Your task to perform on an android device: turn on priority inbox in the gmail app Image 0: 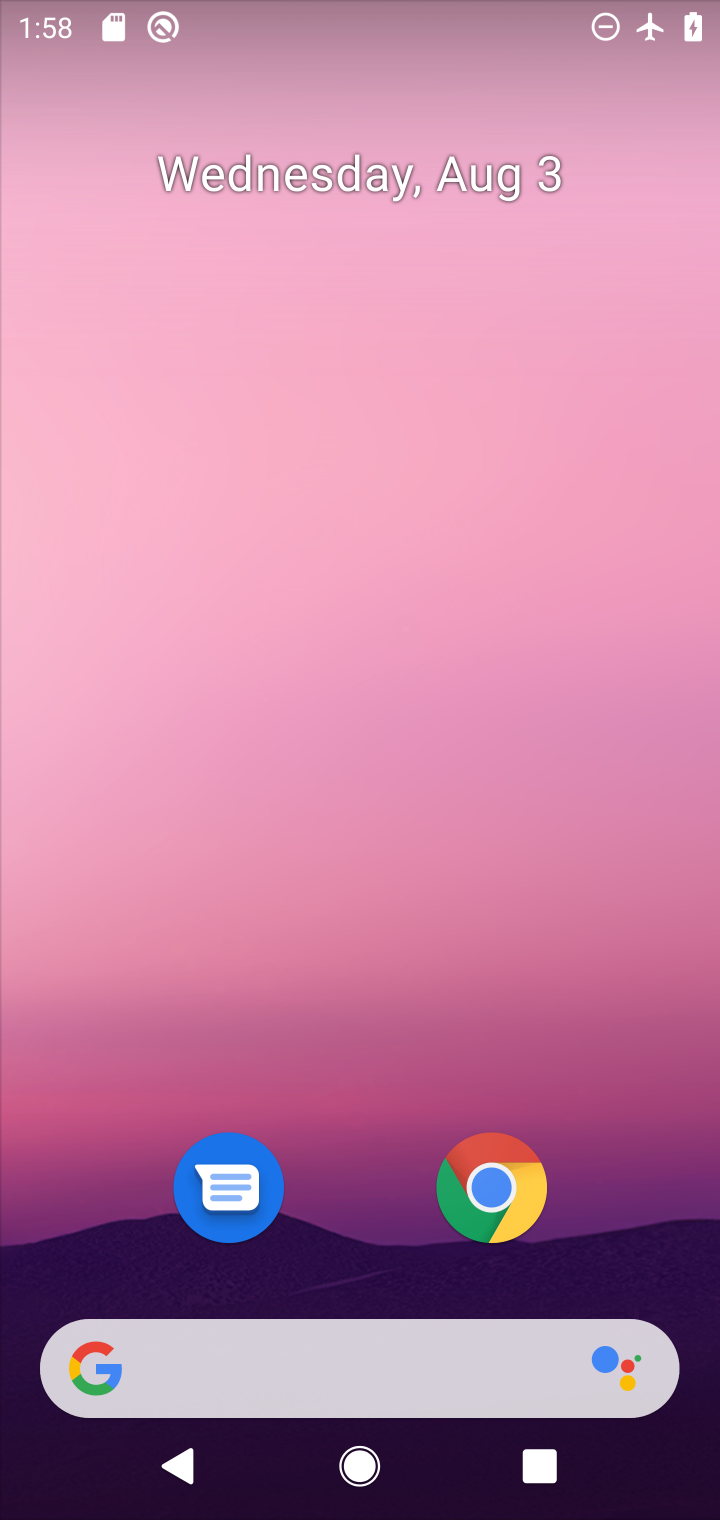
Step 0: drag from (351, 1075) to (457, 33)
Your task to perform on an android device: turn on priority inbox in the gmail app Image 1: 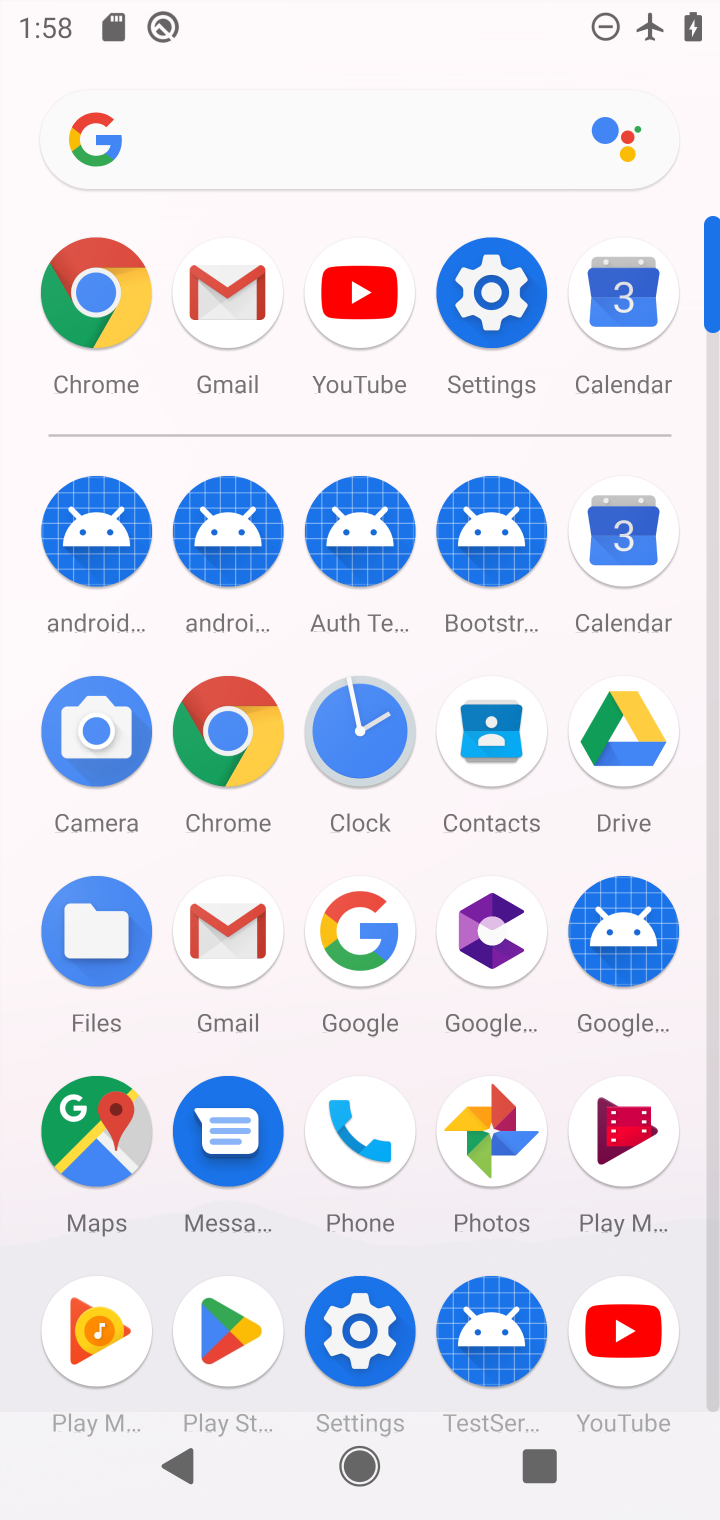
Step 1: click (217, 269)
Your task to perform on an android device: turn on priority inbox in the gmail app Image 2: 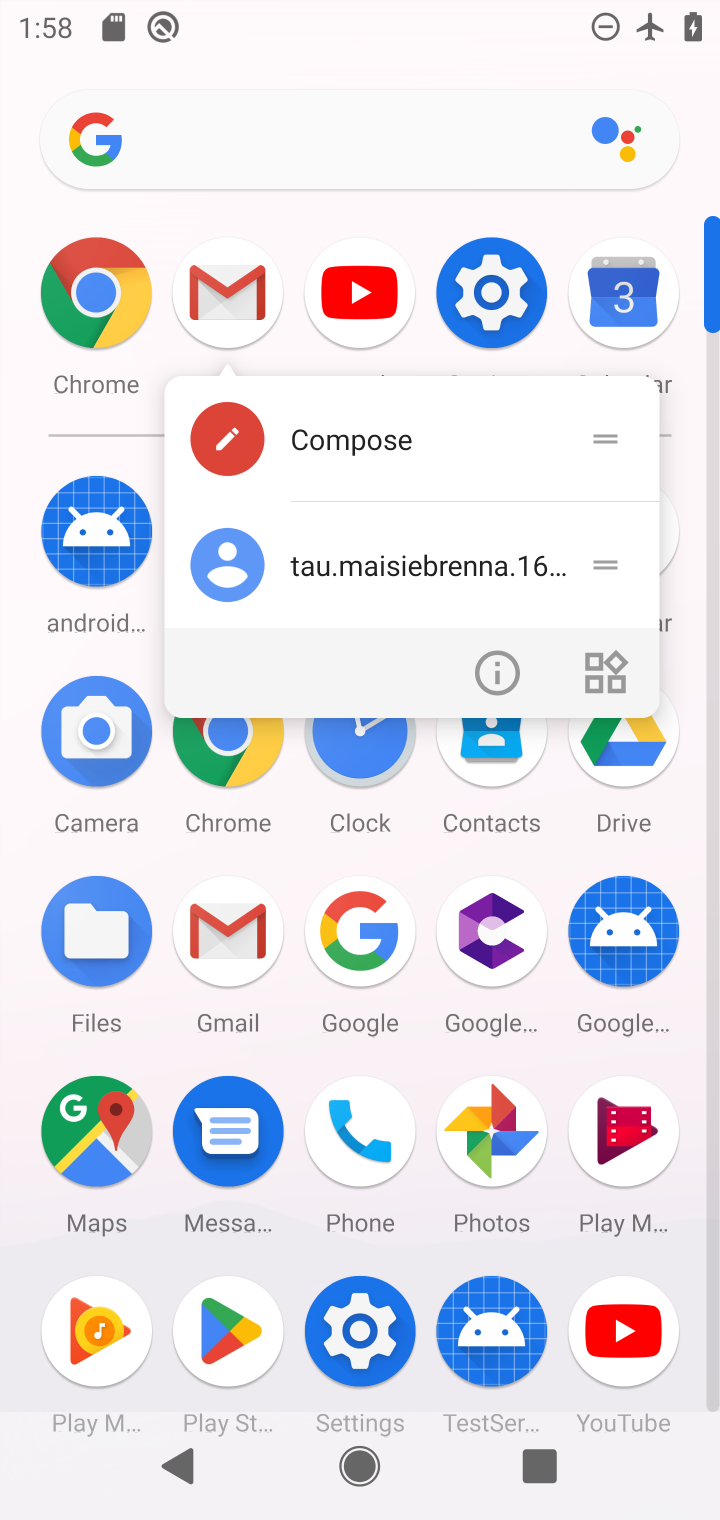
Step 2: click (217, 263)
Your task to perform on an android device: turn on priority inbox in the gmail app Image 3: 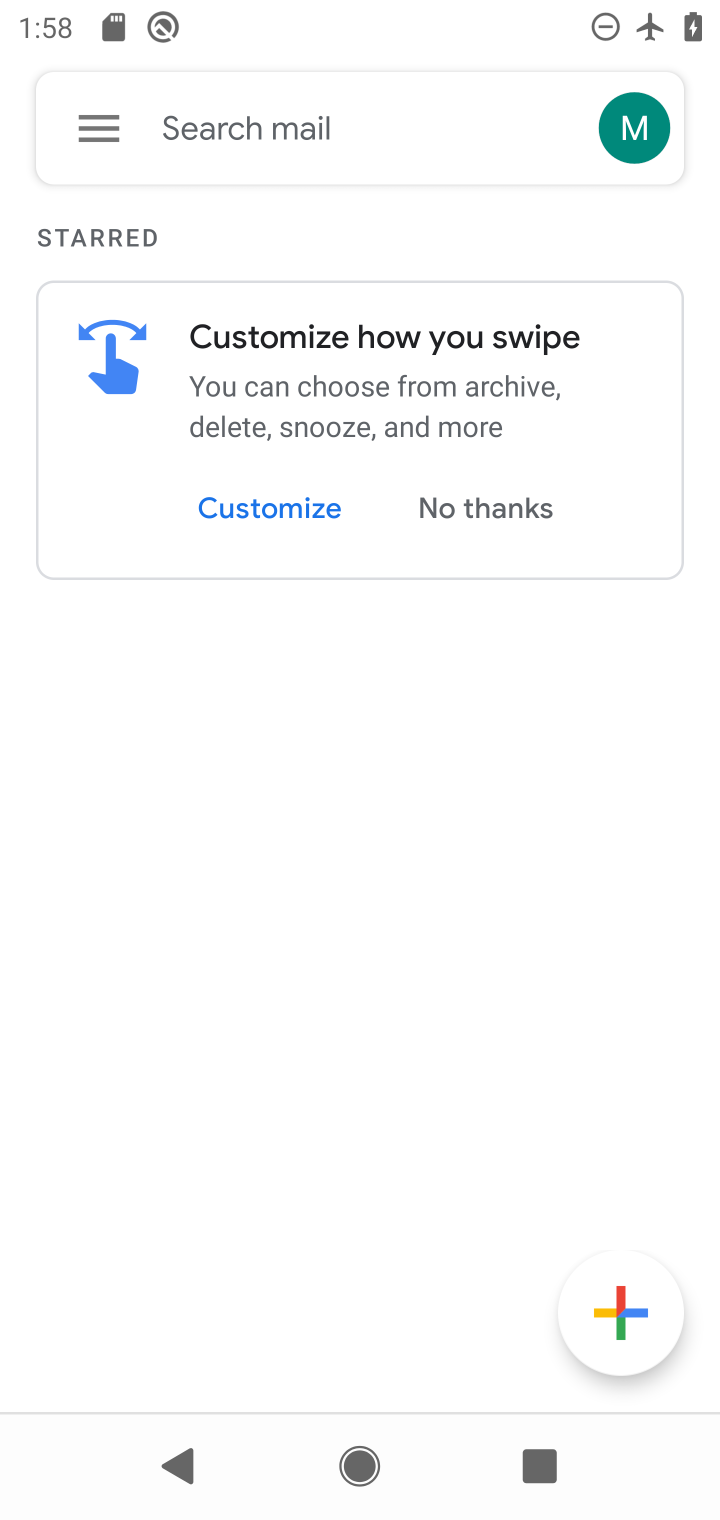
Step 3: click (105, 124)
Your task to perform on an android device: turn on priority inbox in the gmail app Image 4: 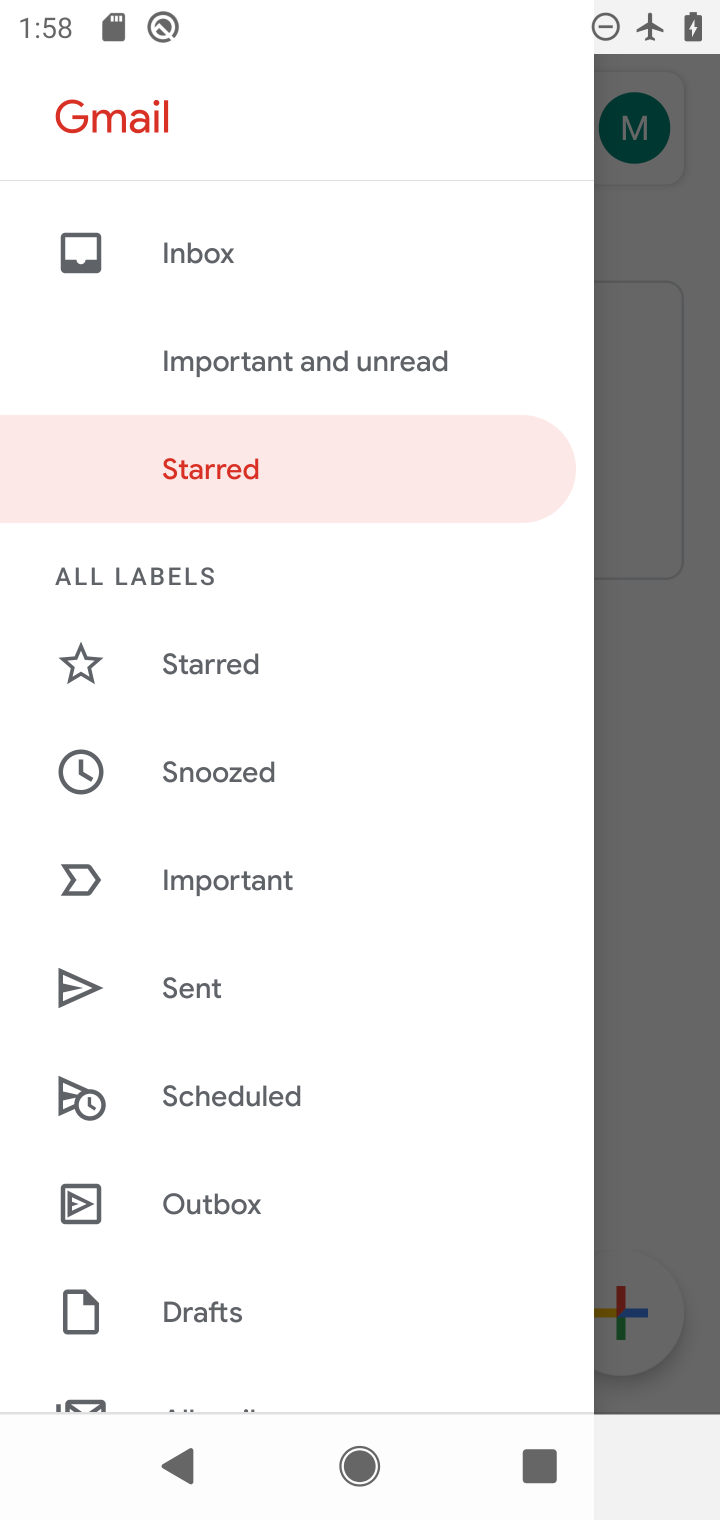
Step 4: drag from (365, 1202) to (375, 374)
Your task to perform on an android device: turn on priority inbox in the gmail app Image 5: 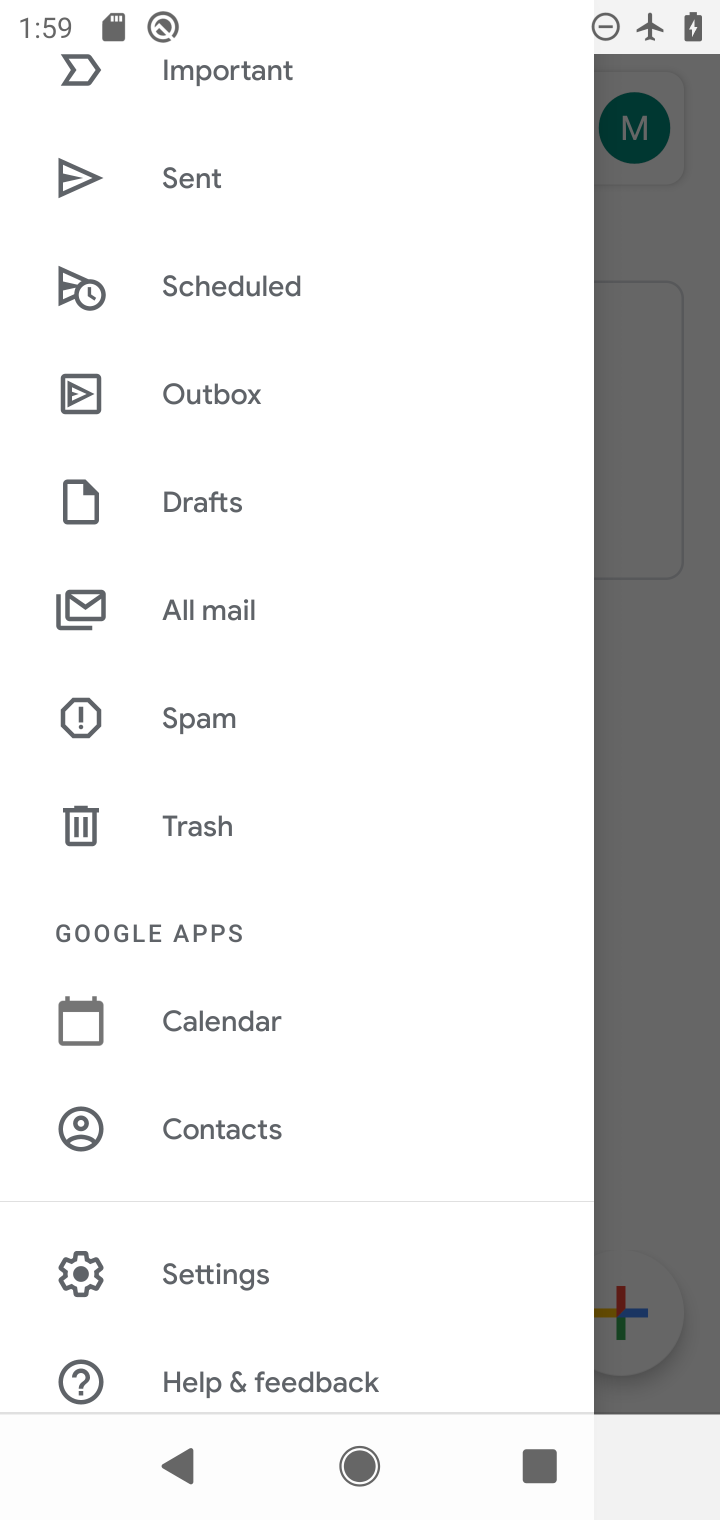
Step 5: click (229, 1277)
Your task to perform on an android device: turn on priority inbox in the gmail app Image 6: 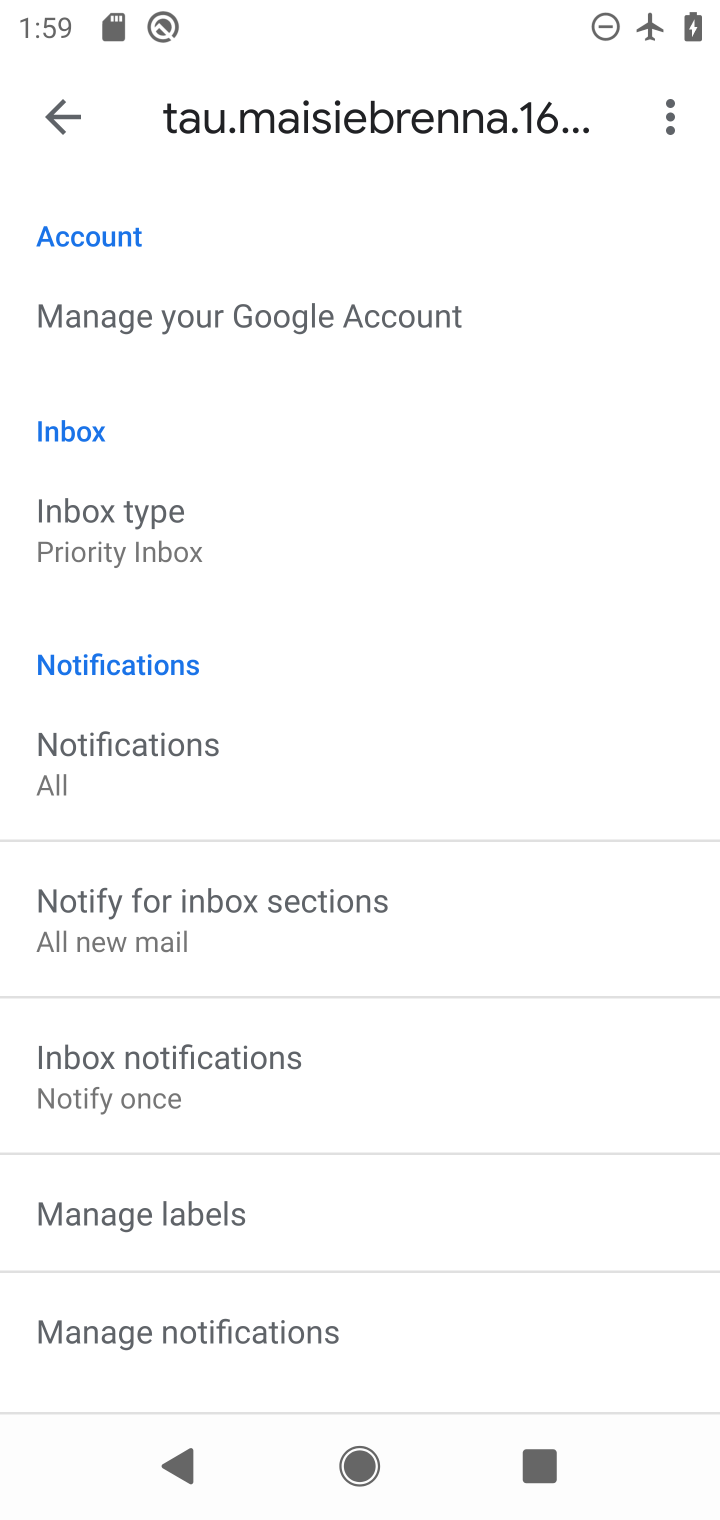
Step 6: click (163, 533)
Your task to perform on an android device: turn on priority inbox in the gmail app Image 7: 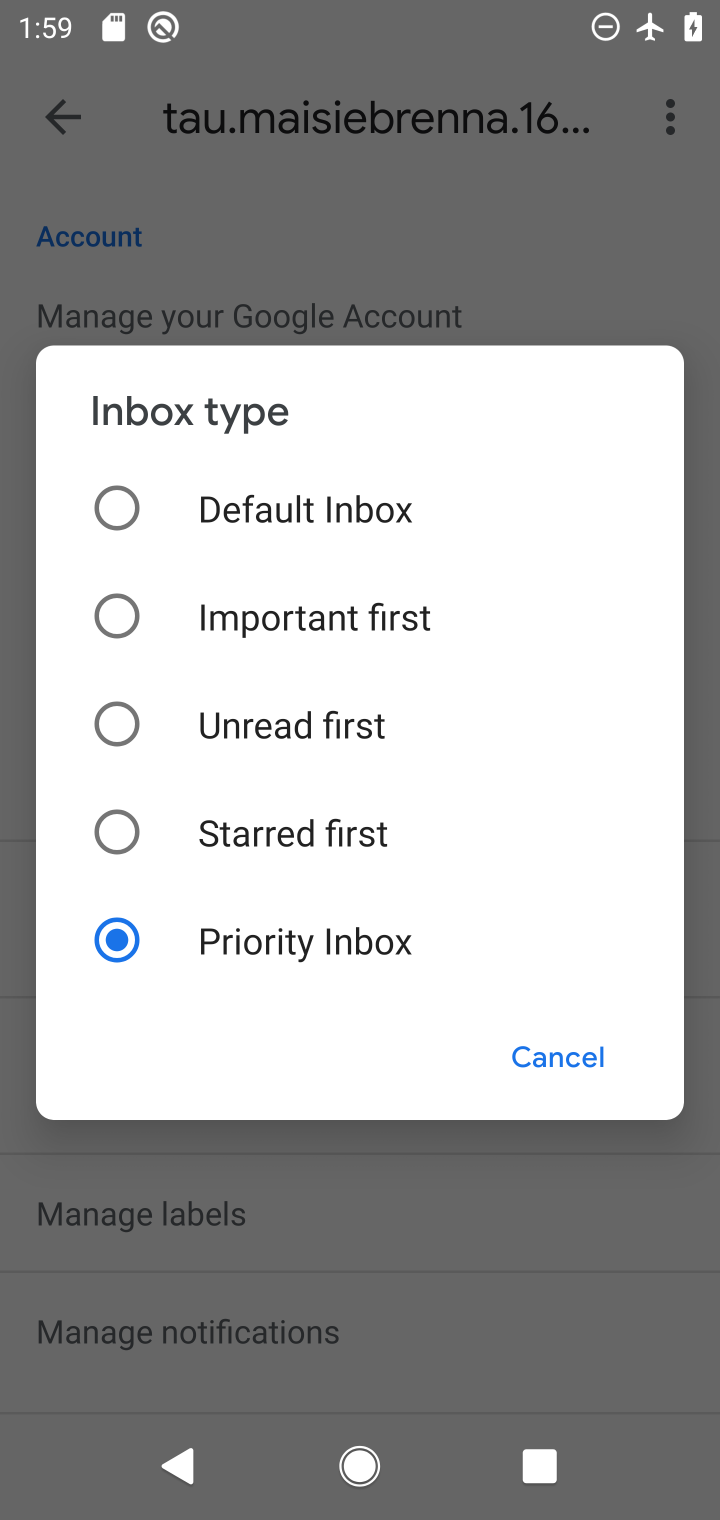
Step 7: click (570, 1059)
Your task to perform on an android device: turn on priority inbox in the gmail app Image 8: 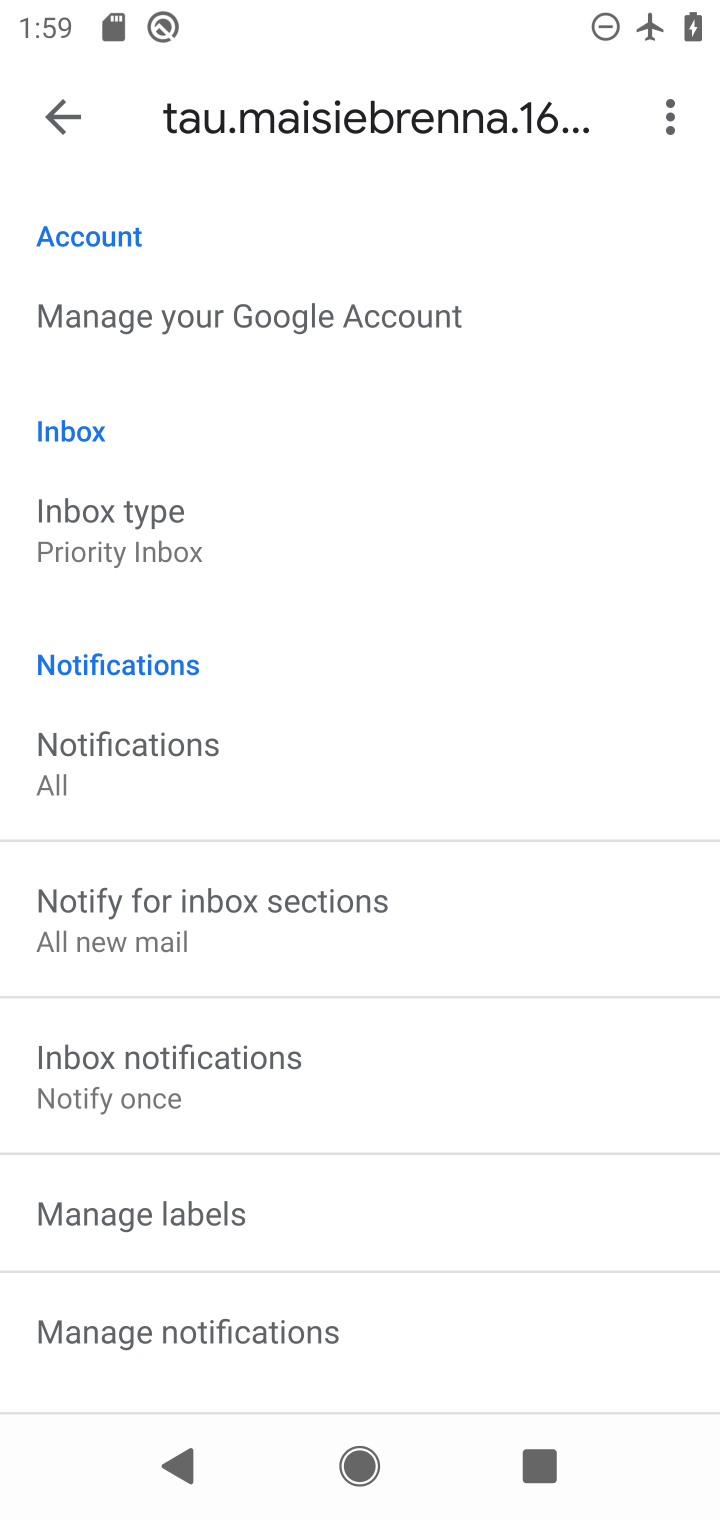
Step 8: task complete